Your task to perform on an android device: turn on airplane mode Image 0: 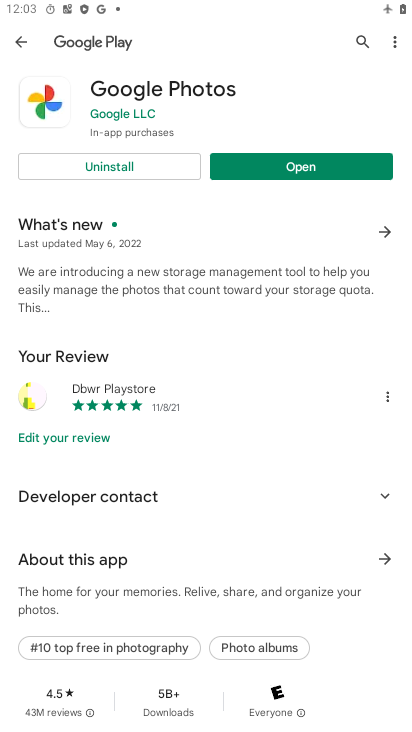
Step 0: drag from (246, 560) to (284, 246)
Your task to perform on an android device: turn on airplane mode Image 1: 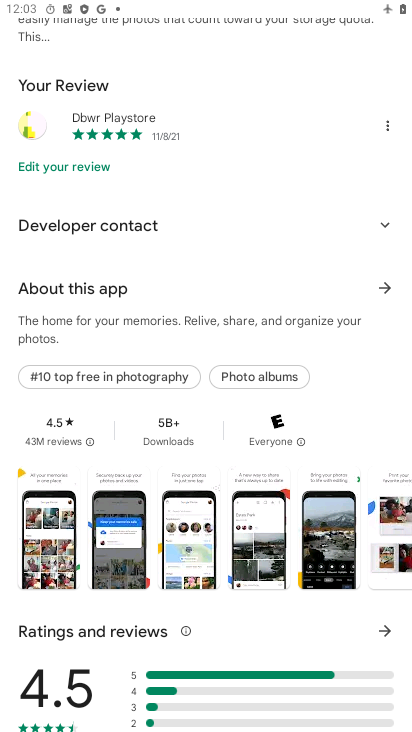
Step 1: drag from (191, 499) to (200, 378)
Your task to perform on an android device: turn on airplane mode Image 2: 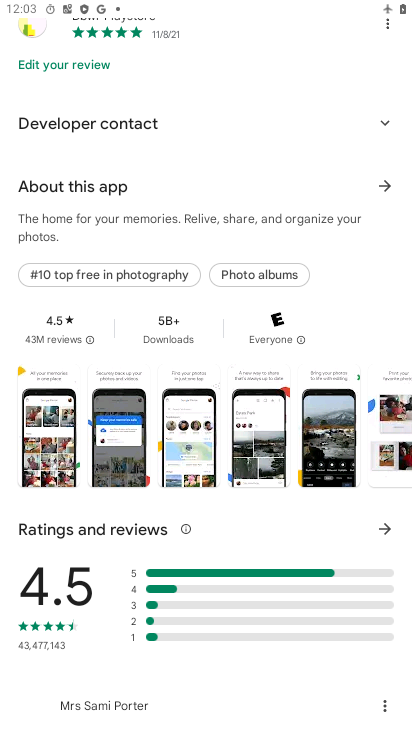
Step 2: drag from (264, 150) to (371, 334)
Your task to perform on an android device: turn on airplane mode Image 3: 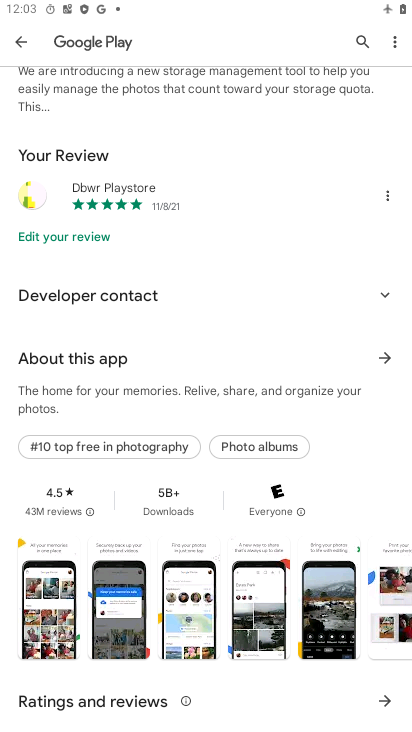
Step 3: press home button
Your task to perform on an android device: turn on airplane mode Image 4: 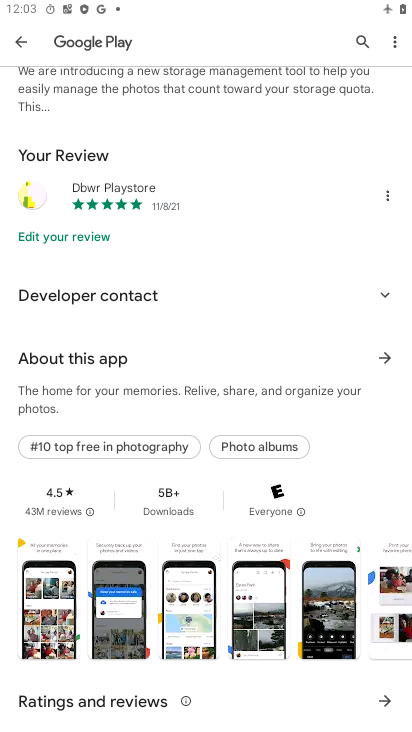
Step 4: drag from (371, 334) to (392, 434)
Your task to perform on an android device: turn on airplane mode Image 5: 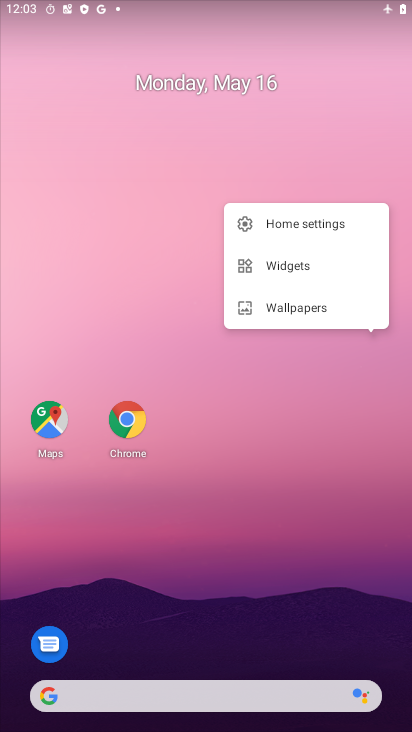
Step 5: click (265, 545)
Your task to perform on an android device: turn on airplane mode Image 6: 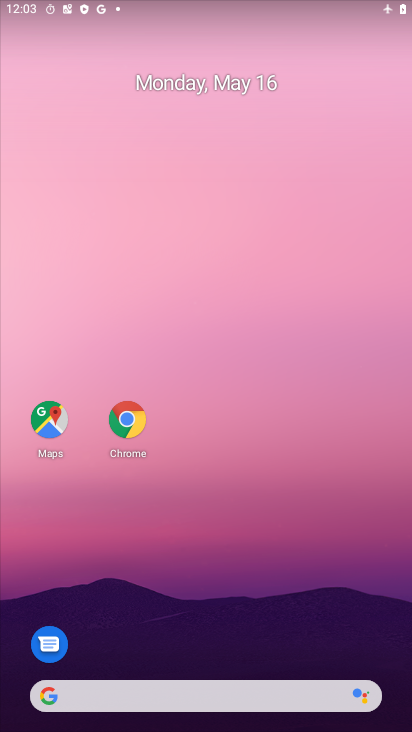
Step 6: drag from (246, 625) to (248, 137)
Your task to perform on an android device: turn on airplane mode Image 7: 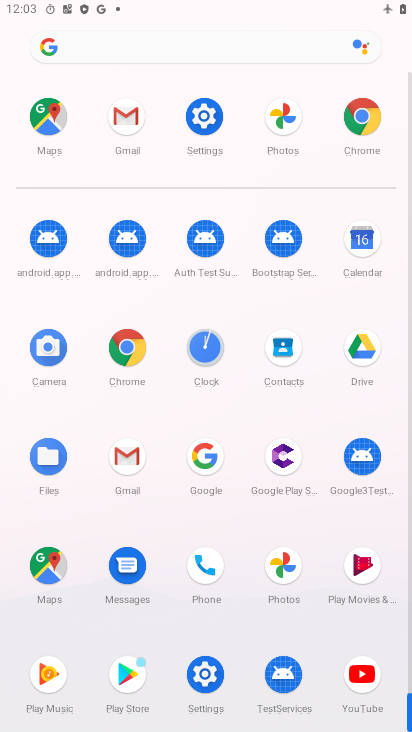
Step 7: click (203, 116)
Your task to perform on an android device: turn on airplane mode Image 8: 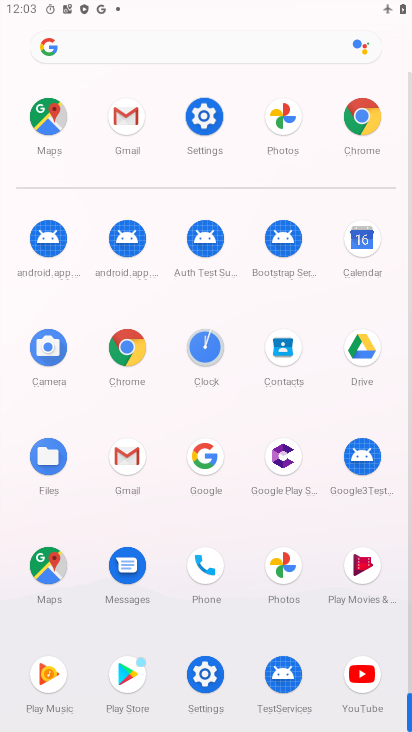
Step 8: click (203, 116)
Your task to perform on an android device: turn on airplane mode Image 9: 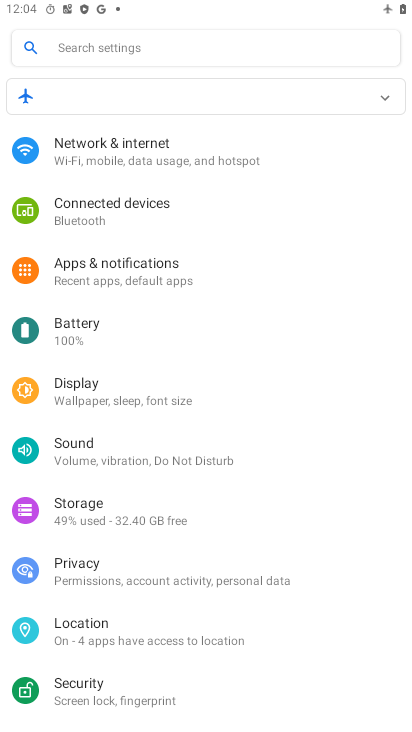
Step 9: click (181, 172)
Your task to perform on an android device: turn on airplane mode Image 10: 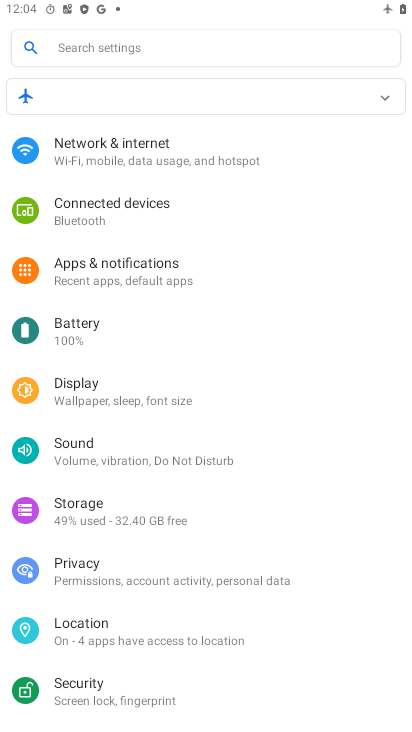
Step 10: click (181, 172)
Your task to perform on an android device: turn on airplane mode Image 11: 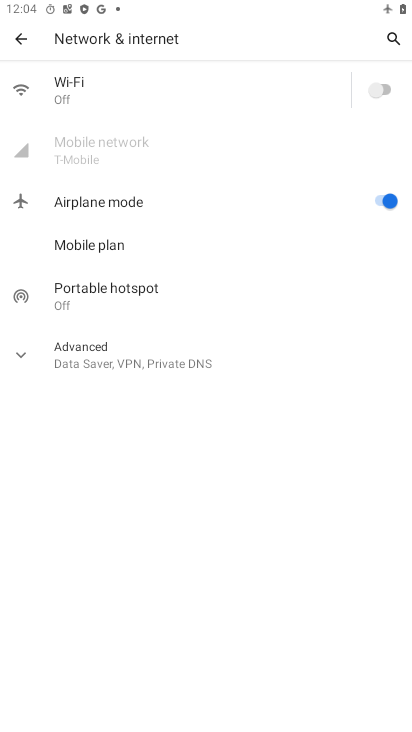
Step 11: task complete